Your task to perform on an android device: all mails in gmail Image 0: 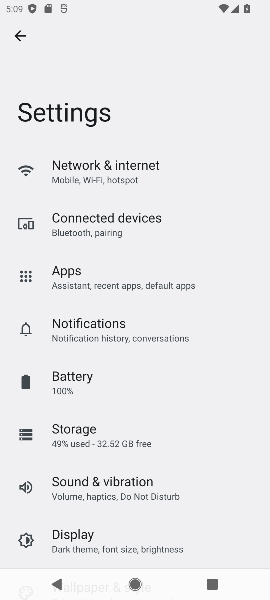
Step 0: press home button
Your task to perform on an android device: all mails in gmail Image 1: 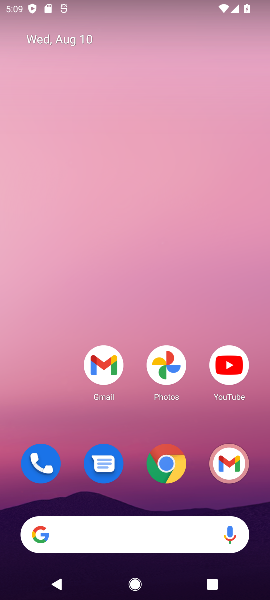
Step 1: click (229, 461)
Your task to perform on an android device: all mails in gmail Image 2: 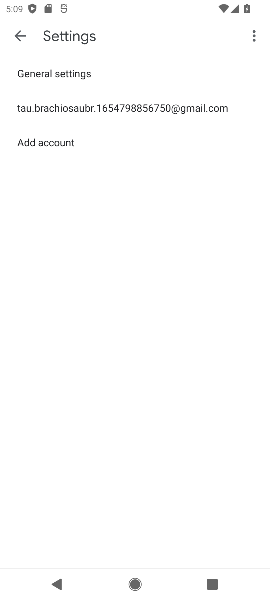
Step 2: click (22, 35)
Your task to perform on an android device: all mails in gmail Image 3: 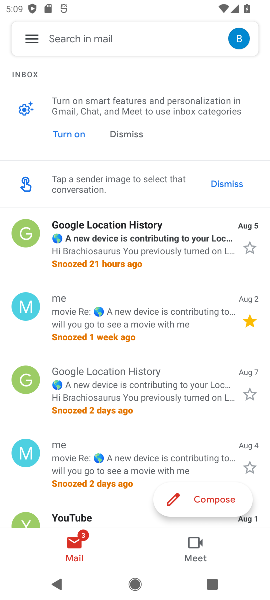
Step 3: click (32, 36)
Your task to perform on an android device: all mails in gmail Image 4: 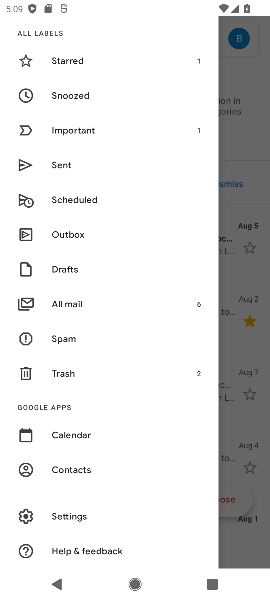
Step 4: click (73, 301)
Your task to perform on an android device: all mails in gmail Image 5: 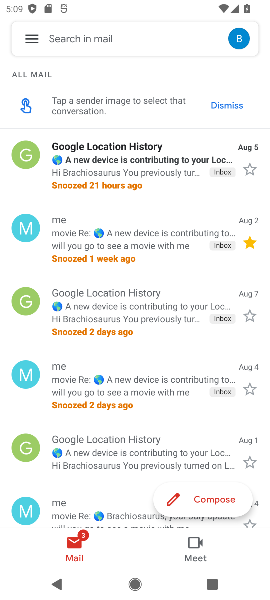
Step 5: task complete